Your task to perform on an android device: clear history in the chrome app Image 0: 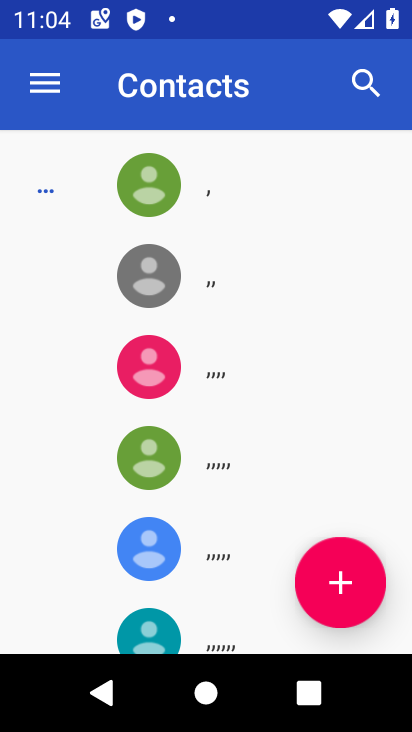
Step 0: press home button
Your task to perform on an android device: clear history in the chrome app Image 1: 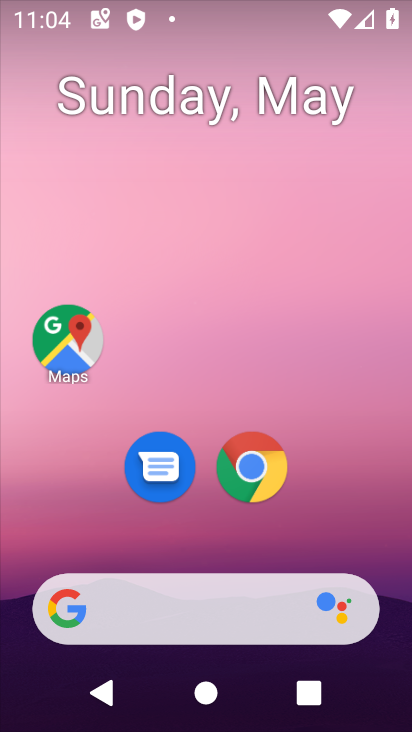
Step 1: click (262, 473)
Your task to perform on an android device: clear history in the chrome app Image 2: 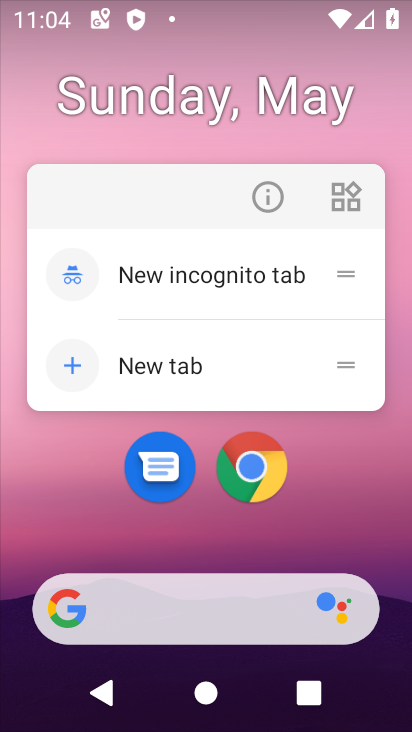
Step 2: click (259, 475)
Your task to perform on an android device: clear history in the chrome app Image 3: 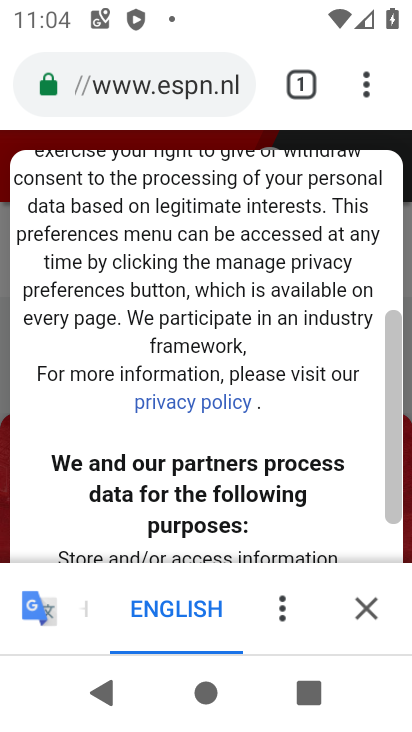
Step 3: click (369, 82)
Your task to perform on an android device: clear history in the chrome app Image 4: 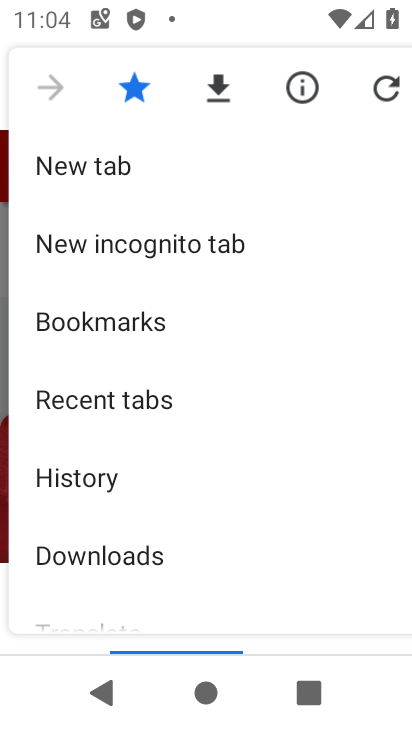
Step 4: click (97, 487)
Your task to perform on an android device: clear history in the chrome app Image 5: 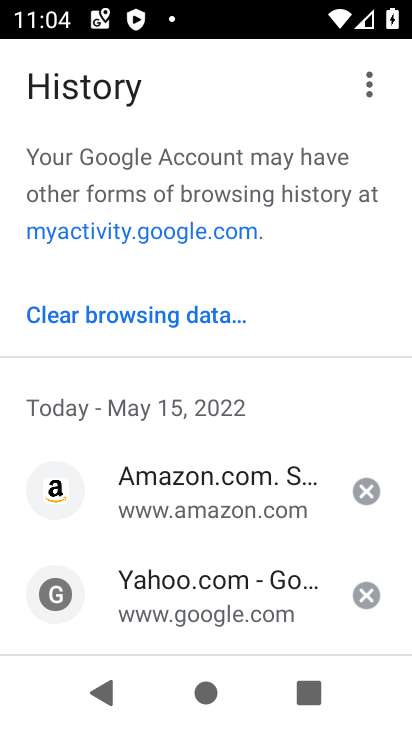
Step 5: click (137, 183)
Your task to perform on an android device: clear history in the chrome app Image 6: 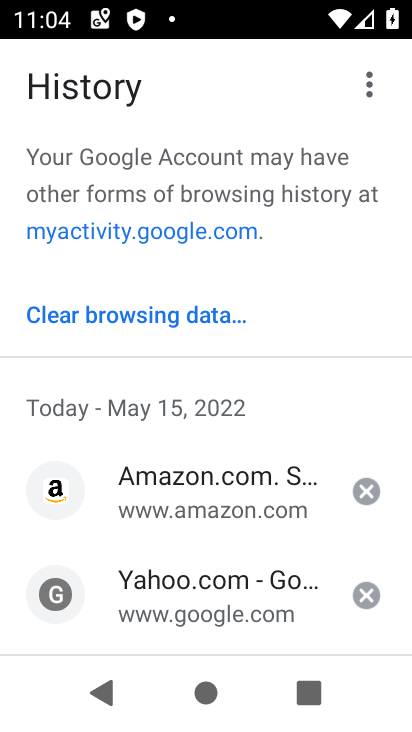
Step 6: click (116, 312)
Your task to perform on an android device: clear history in the chrome app Image 7: 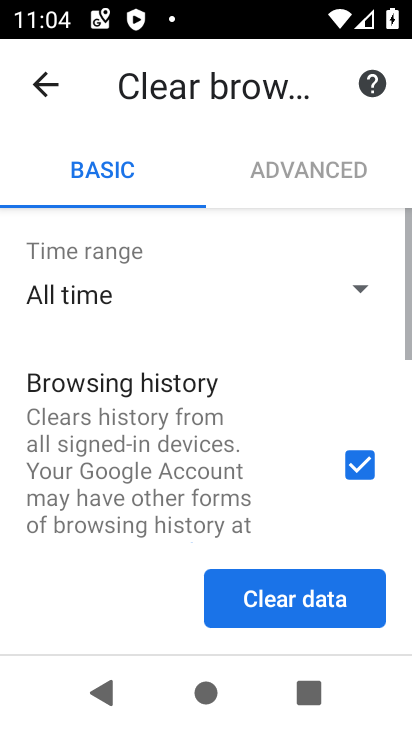
Step 7: drag from (208, 423) to (216, 143)
Your task to perform on an android device: clear history in the chrome app Image 8: 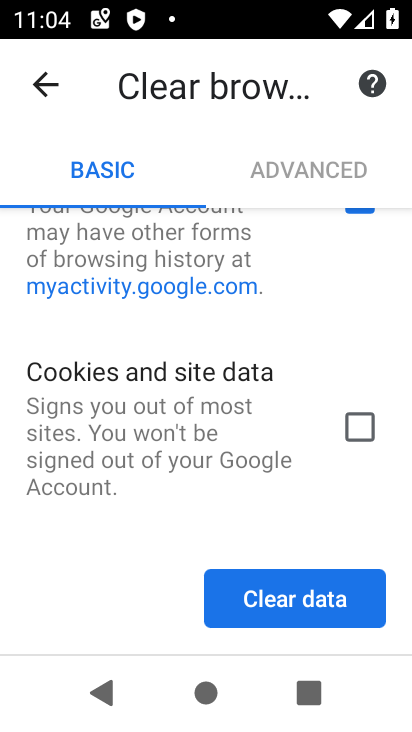
Step 8: drag from (135, 450) to (155, 182)
Your task to perform on an android device: clear history in the chrome app Image 9: 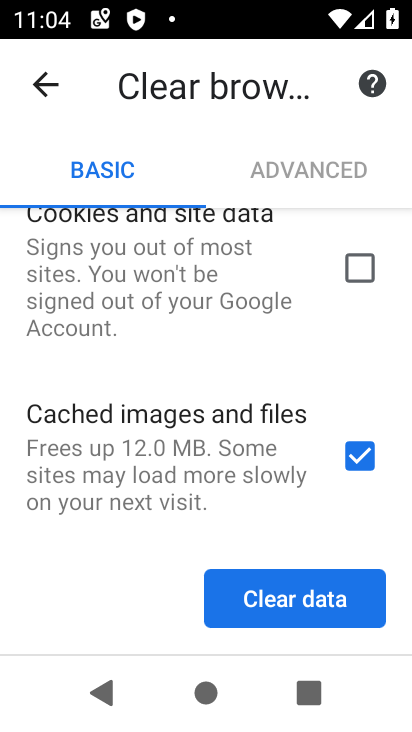
Step 9: click (367, 451)
Your task to perform on an android device: clear history in the chrome app Image 10: 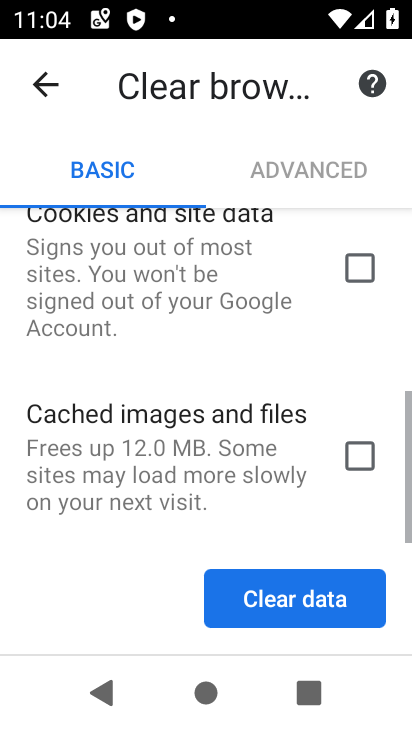
Step 10: drag from (132, 462) to (132, 255)
Your task to perform on an android device: clear history in the chrome app Image 11: 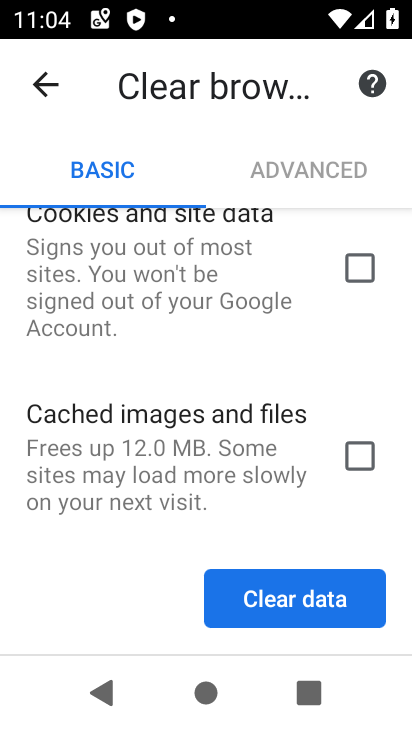
Step 11: click (280, 611)
Your task to perform on an android device: clear history in the chrome app Image 12: 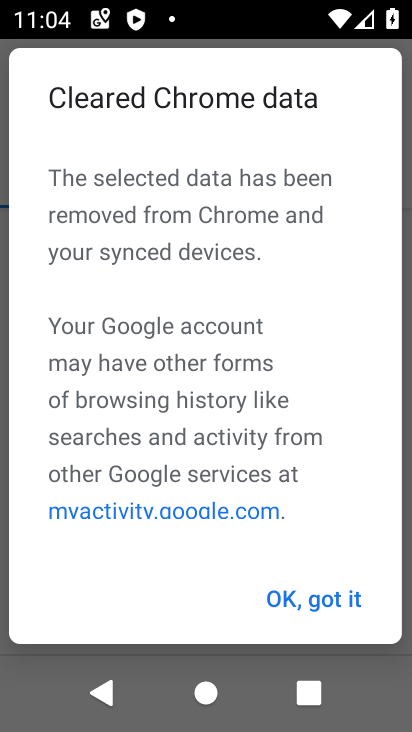
Step 12: click (345, 610)
Your task to perform on an android device: clear history in the chrome app Image 13: 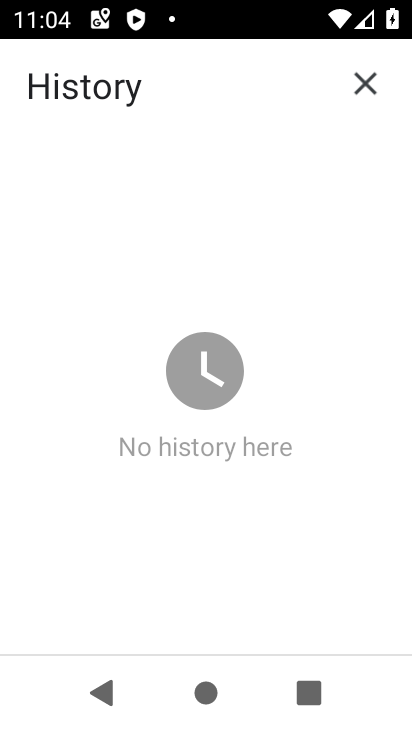
Step 13: task complete